Your task to perform on an android device: Show me popular games on the Play Store Image 0: 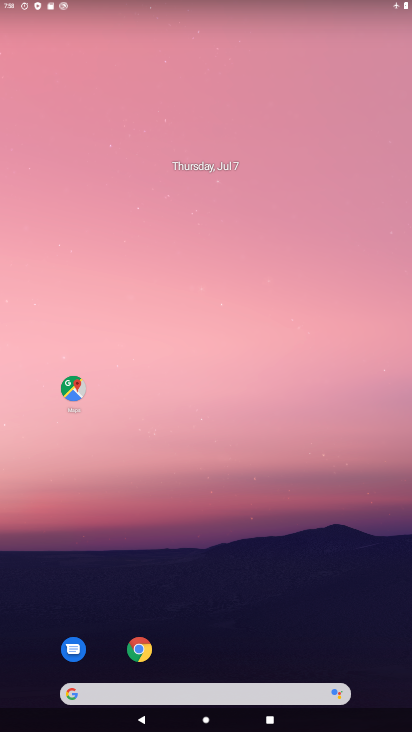
Step 0: drag from (207, 601) to (226, 59)
Your task to perform on an android device: Show me popular games on the Play Store Image 1: 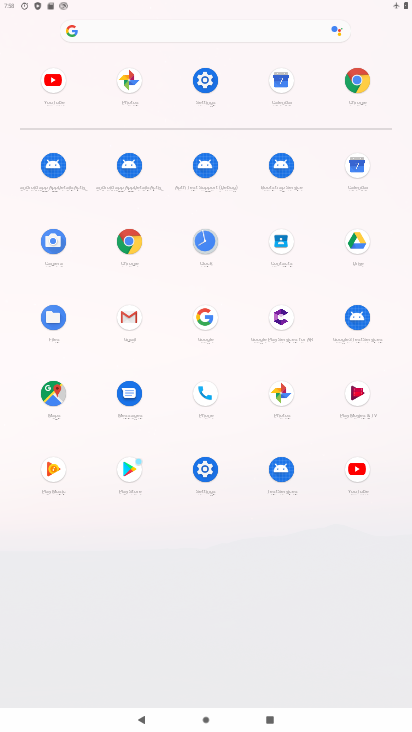
Step 1: click (131, 466)
Your task to perform on an android device: Show me popular games on the Play Store Image 2: 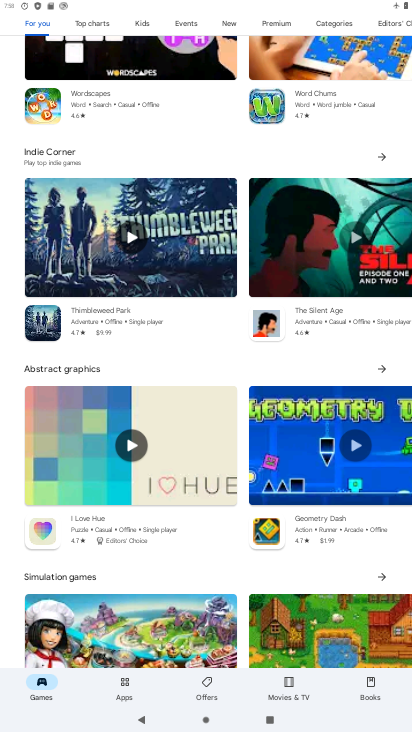
Step 2: task complete